Your task to perform on an android device: Go to Google maps Image 0: 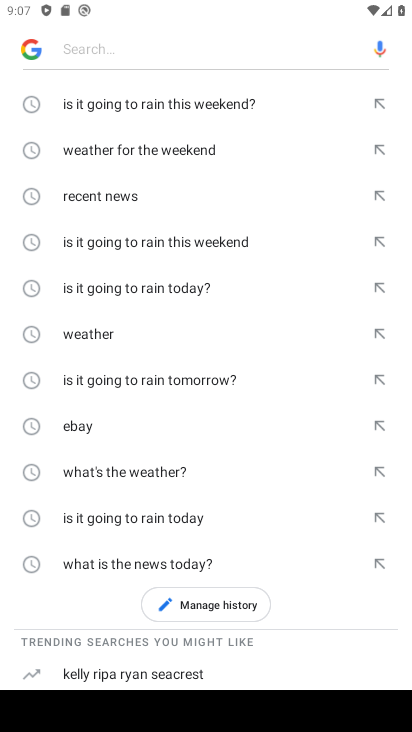
Step 0: press home button
Your task to perform on an android device: Go to Google maps Image 1: 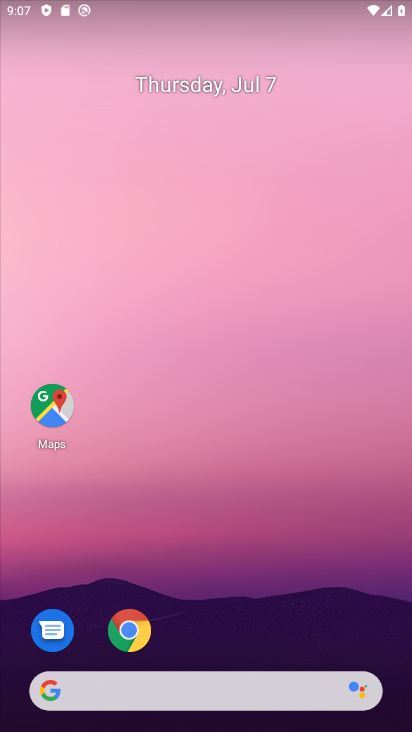
Step 1: click (53, 406)
Your task to perform on an android device: Go to Google maps Image 2: 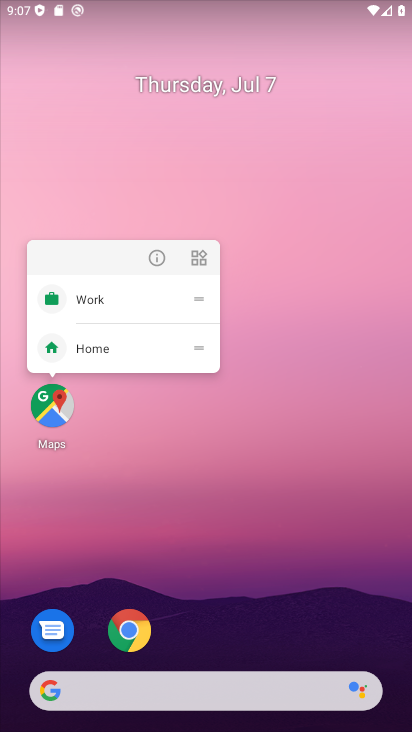
Step 2: click (53, 406)
Your task to perform on an android device: Go to Google maps Image 3: 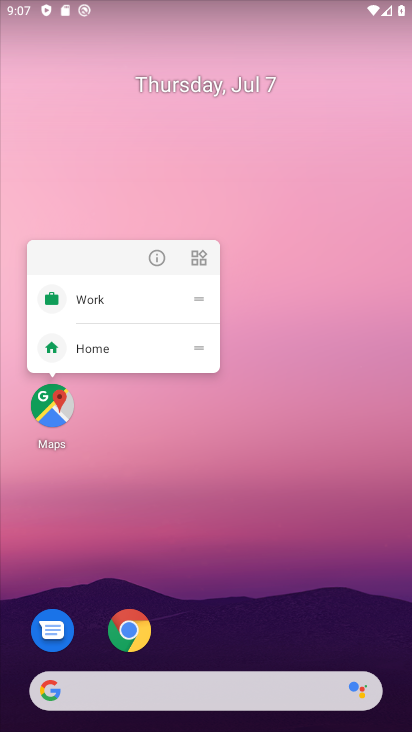
Step 3: click (53, 406)
Your task to perform on an android device: Go to Google maps Image 4: 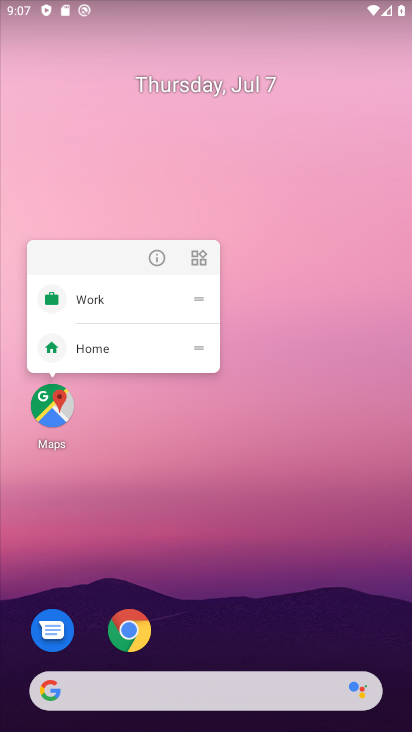
Step 4: click (53, 406)
Your task to perform on an android device: Go to Google maps Image 5: 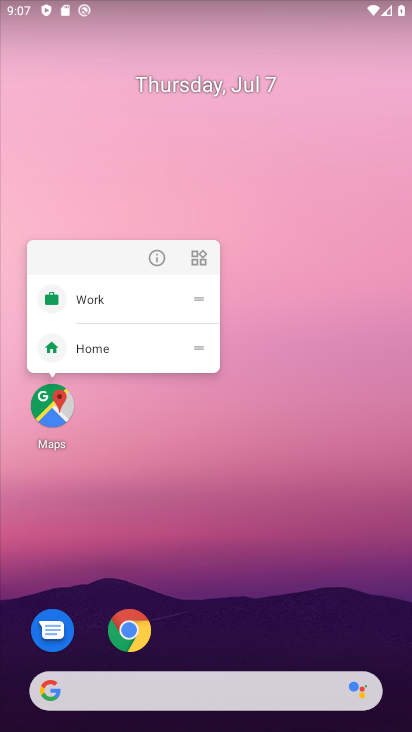
Step 5: click (53, 421)
Your task to perform on an android device: Go to Google maps Image 6: 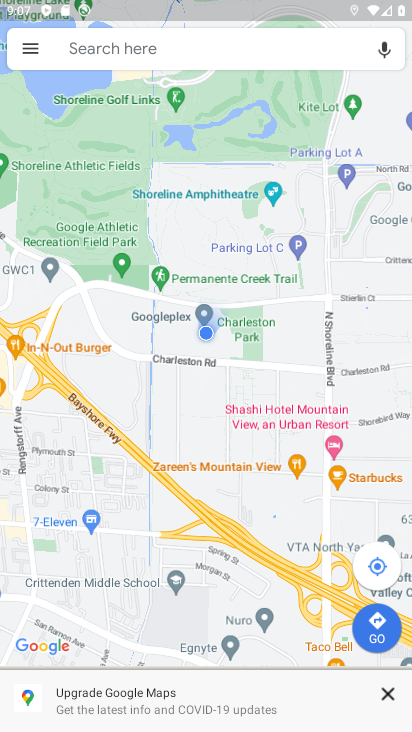
Step 6: task complete